Your task to perform on an android device: Go to network settings Image 0: 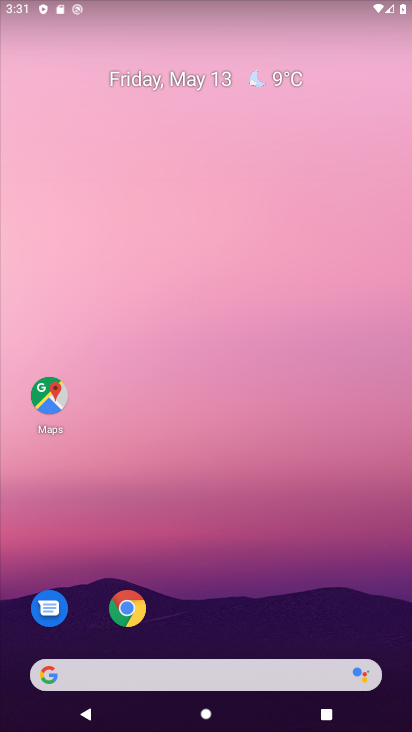
Step 0: drag from (220, 570) to (178, 148)
Your task to perform on an android device: Go to network settings Image 1: 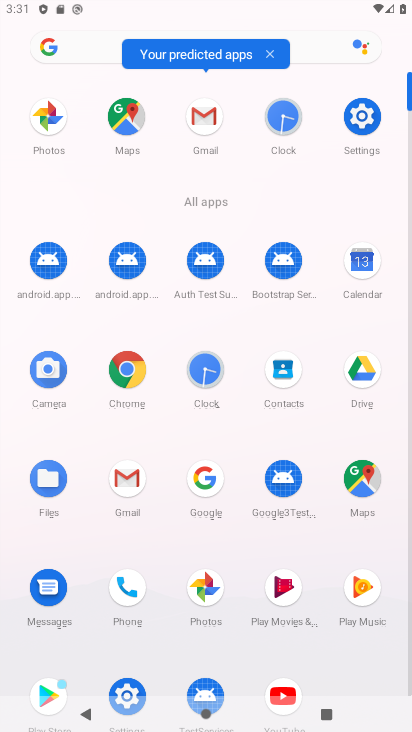
Step 1: click (368, 180)
Your task to perform on an android device: Go to network settings Image 2: 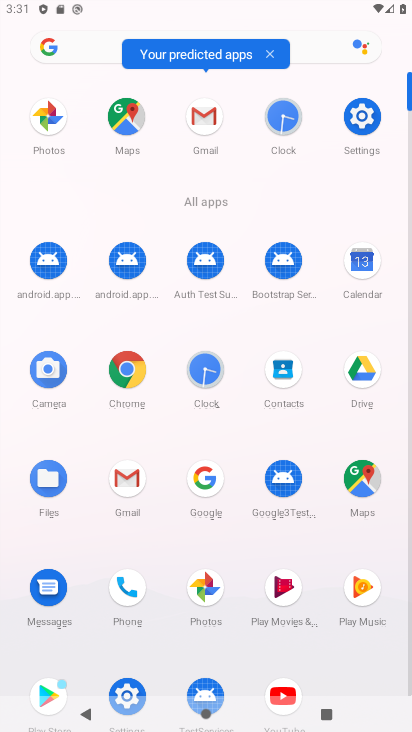
Step 2: click (371, 116)
Your task to perform on an android device: Go to network settings Image 3: 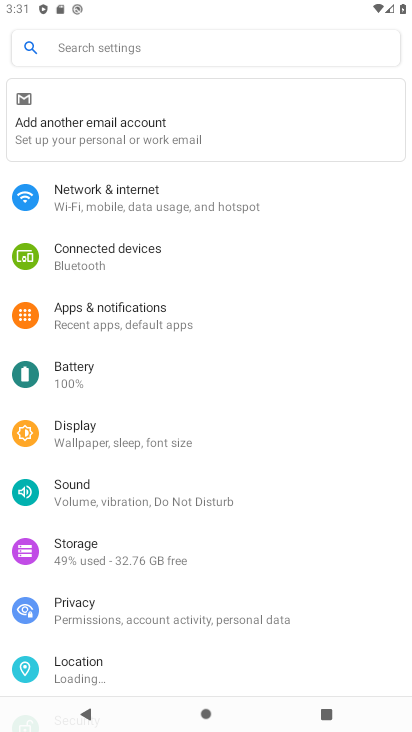
Step 3: click (145, 197)
Your task to perform on an android device: Go to network settings Image 4: 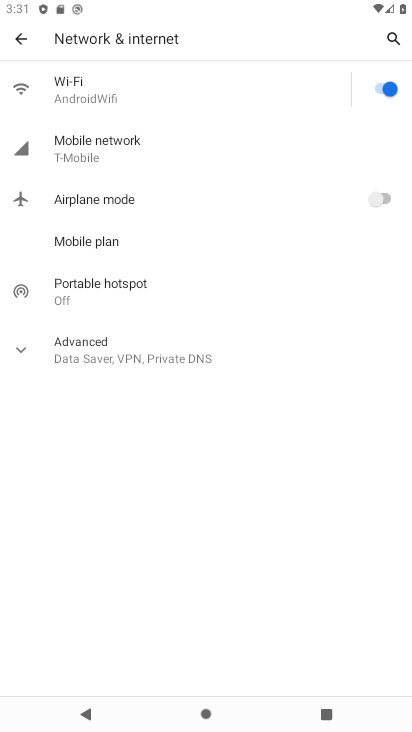
Step 4: click (161, 347)
Your task to perform on an android device: Go to network settings Image 5: 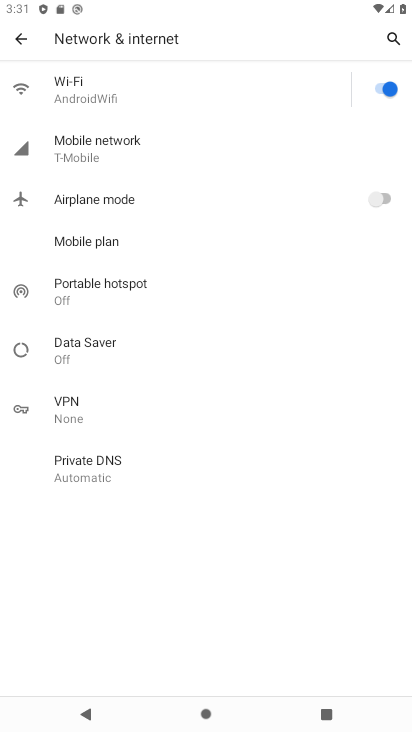
Step 5: task complete